Your task to perform on an android device: Open Chrome and go to the settings page Image 0: 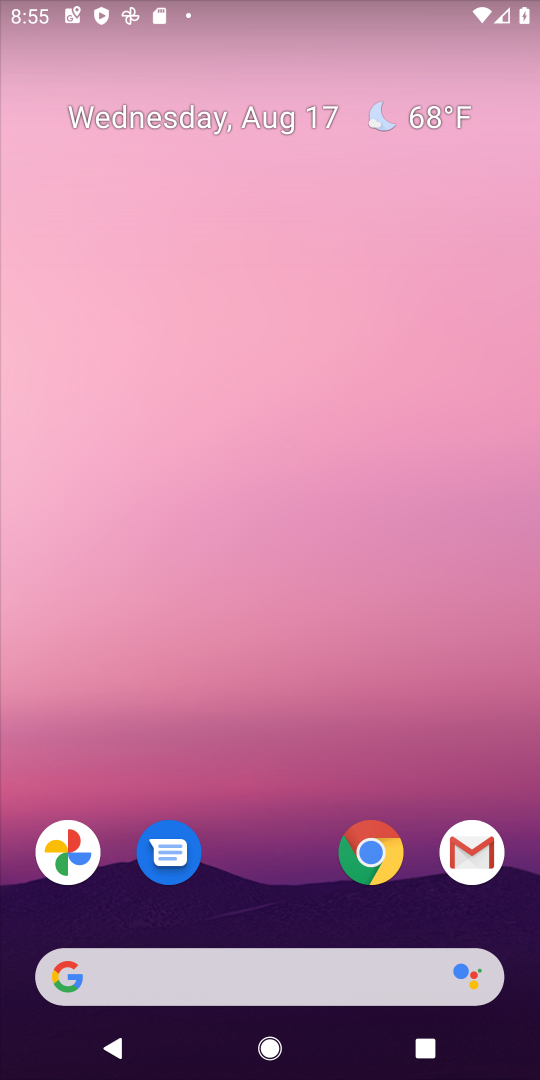
Step 0: click (368, 856)
Your task to perform on an android device: Open Chrome and go to the settings page Image 1: 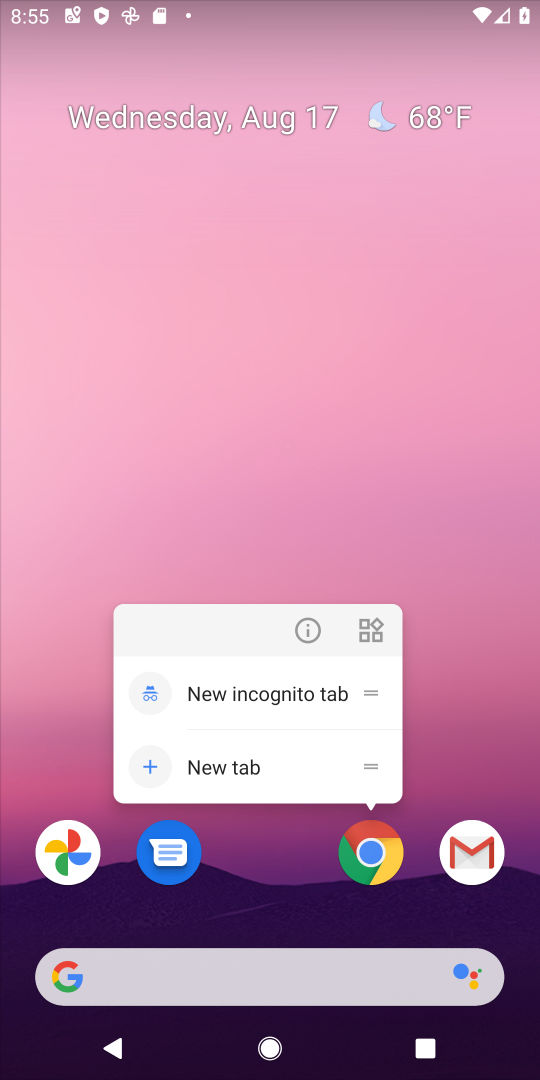
Step 1: click (368, 856)
Your task to perform on an android device: Open Chrome and go to the settings page Image 2: 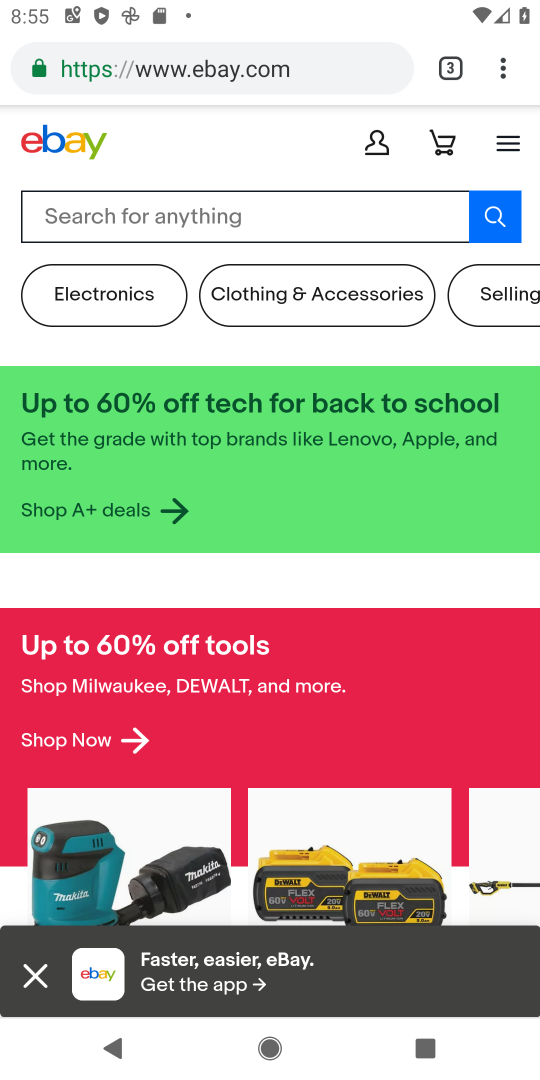
Step 2: click (500, 69)
Your task to perform on an android device: Open Chrome and go to the settings page Image 3: 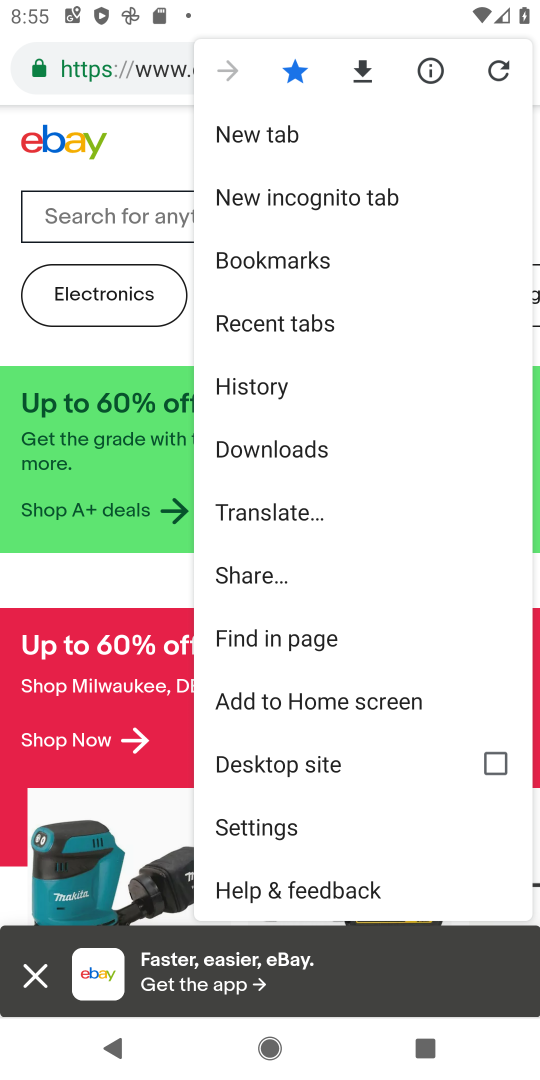
Step 3: click (266, 823)
Your task to perform on an android device: Open Chrome and go to the settings page Image 4: 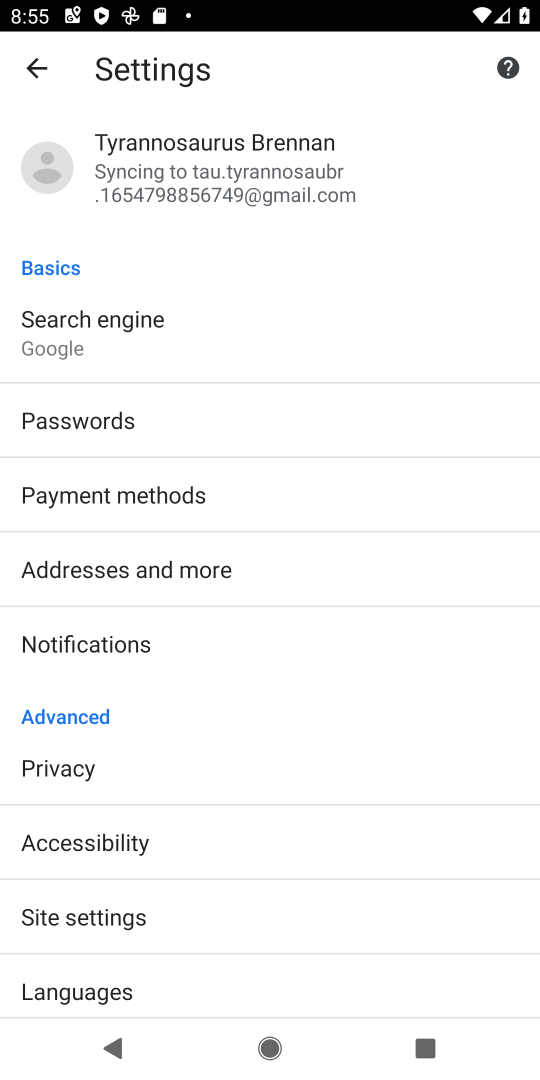
Step 4: task complete